Your task to perform on an android device: add a contact in the contacts app Image 0: 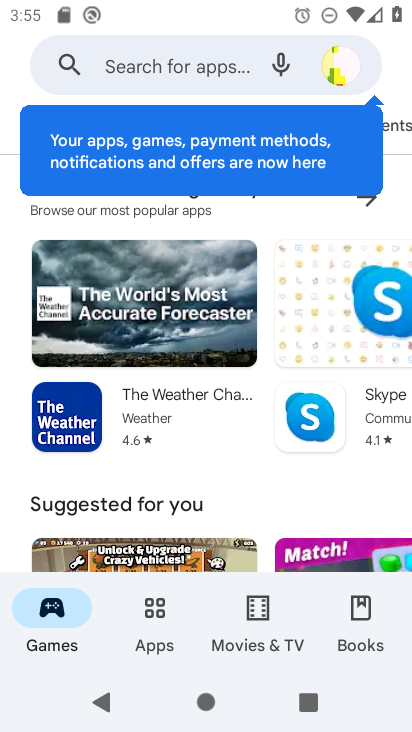
Step 0: press home button
Your task to perform on an android device: add a contact in the contacts app Image 1: 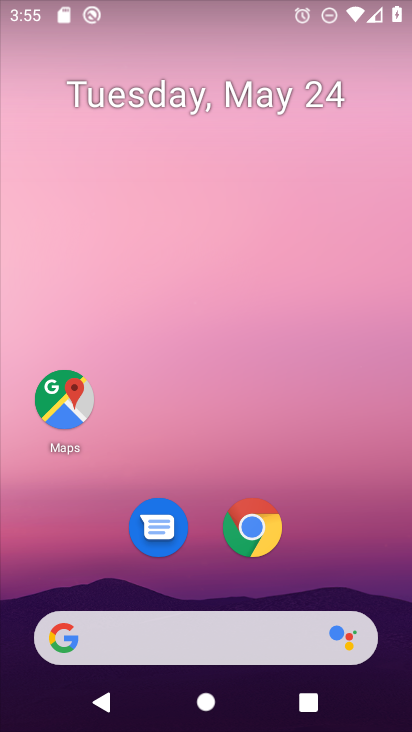
Step 1: drag from (178, 398) to (137, 77)
Your task to perform on an android device: add a contact in the contacts app Image 2: 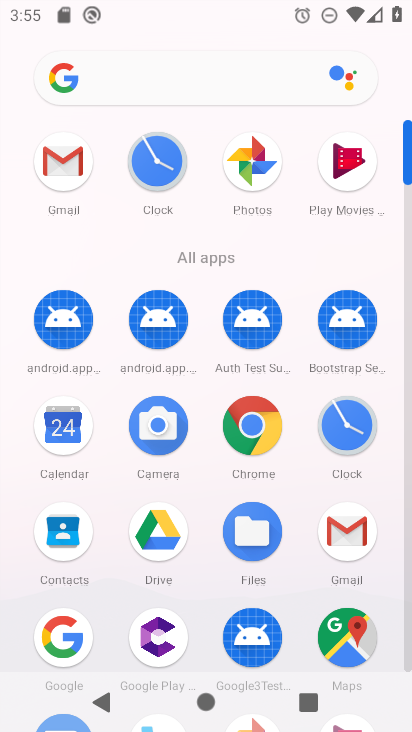
Step 2: drag from (233, 293) to (148, 69)
Your task to perform on an android device: add a contact in the contacts app Image 3: 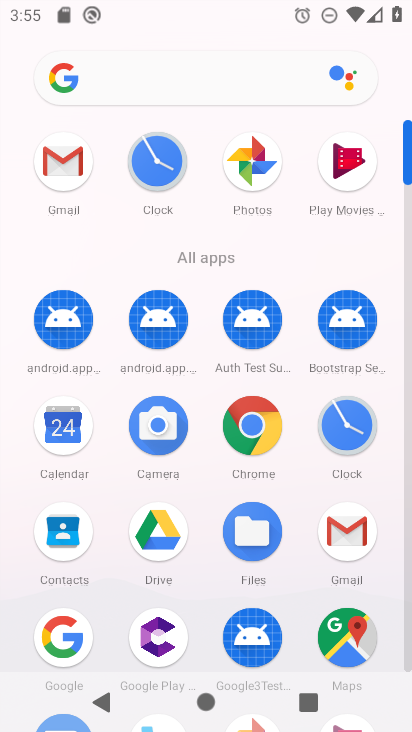
Step 3: click (78, 541)
Your task to perform on an android device: add a contact in the contacts app Image 4: 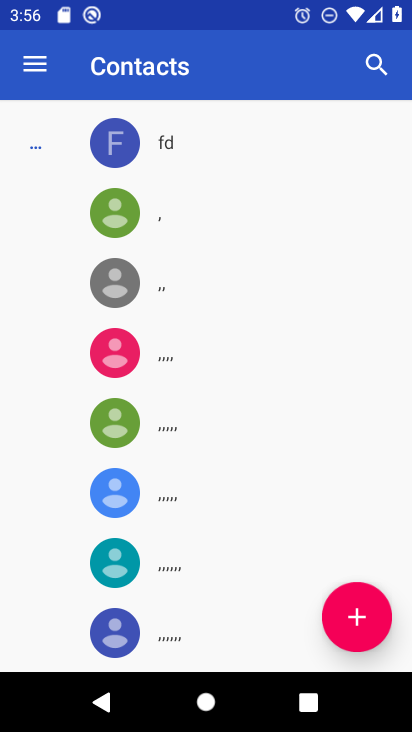
Step 4: click (362, 605)
Your task to perform on an android device: add a contact in the contacts app Image 5: 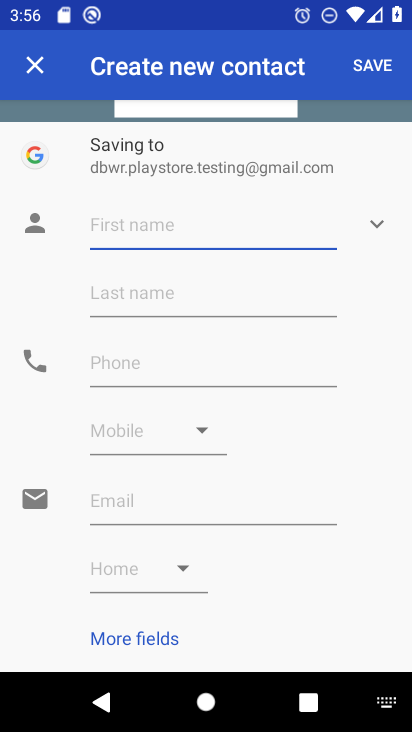
Step 5: type "dan"
Your task to perform on an android device: add a contact in the contacts app Image 6: 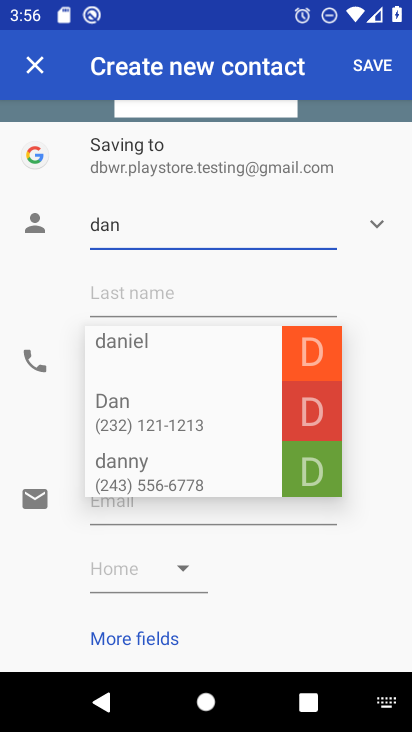
Step 6: click (239, 368)
Your task to perform on an android device: add a contact in the contacts app Image 7: 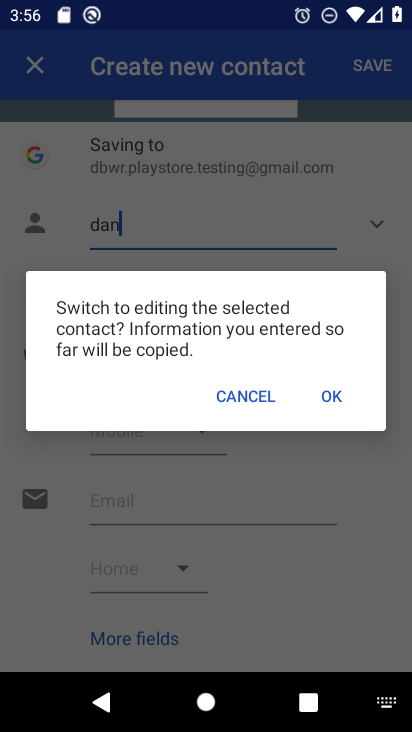
Step 7: click (225, 390)
Your task to perform on an android device: add a contact in the contacts app Image 8: 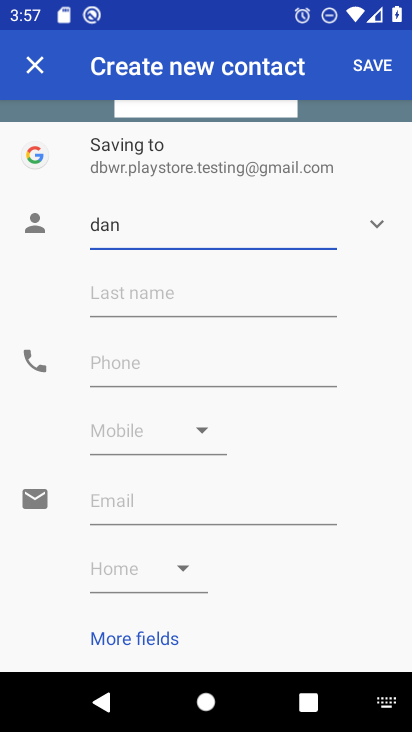
Step 8: type "er"
Your task to perform on an android device: add a contact in the contacts app Image 9: 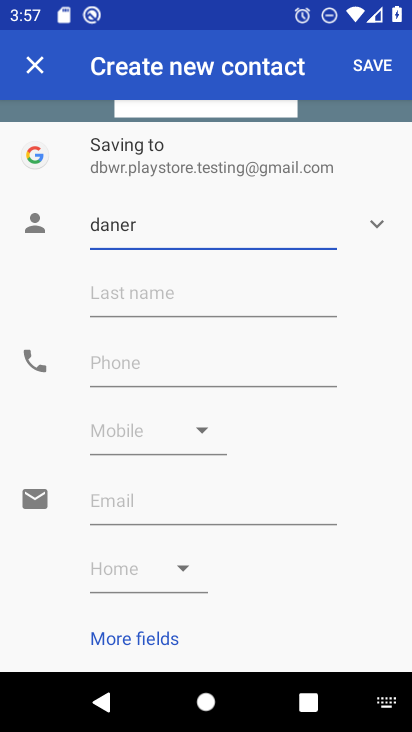
Step 9: click (200, 359)
Your task to perform on an android device: add a contact in the contacts app Image 10: 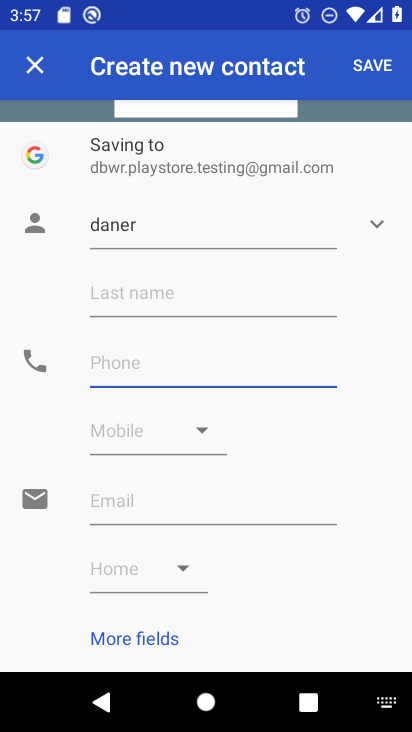
Step 10: type "ii987654"
Your task to perform on an android device: add a contact in the contacts app Image 11: 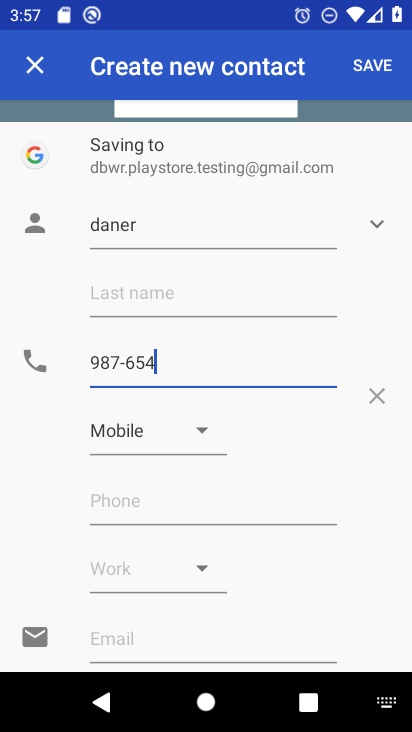
Step 11: click (371, 62)
Your task to perform on an android device: add a contact in the contacts app Image 12: 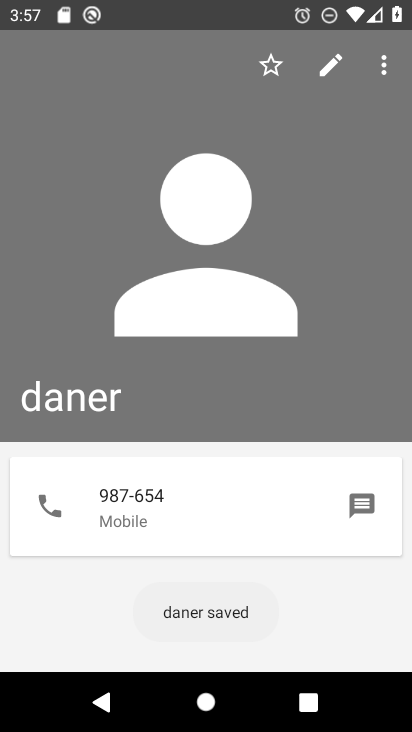
Step 12: task complete